Your task to perform on an android device: When is my next meeting? Image 0: 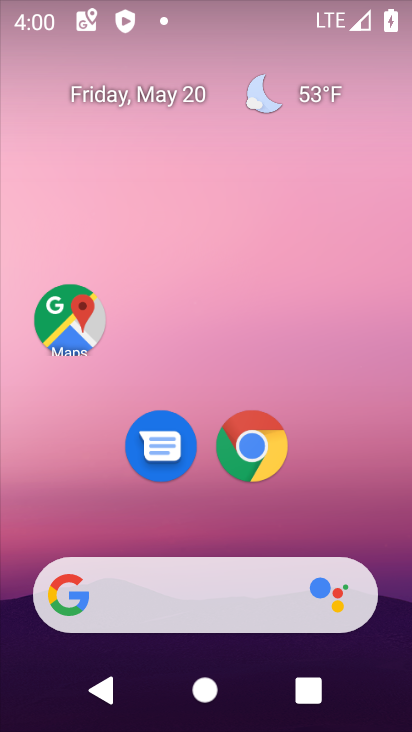
Step 0: drag from (341, 484) to (380, 106)
Your task to perform on an android device: When is my next meeting? Image 1: 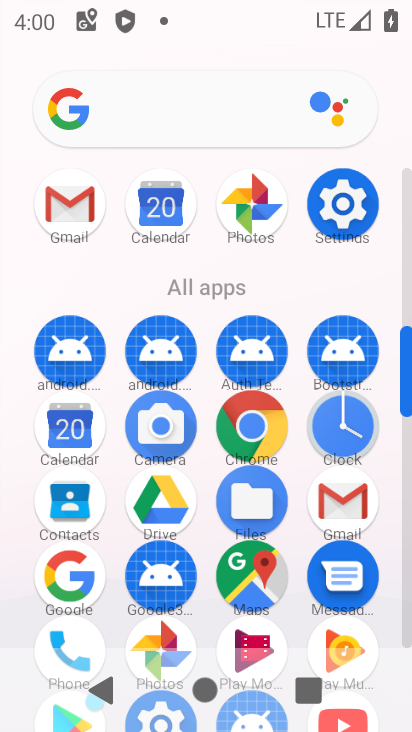
Step 1: drag from (390, 553) to (381, 205)
Your task to perform on an android device: When is my next meeting? Image 2: 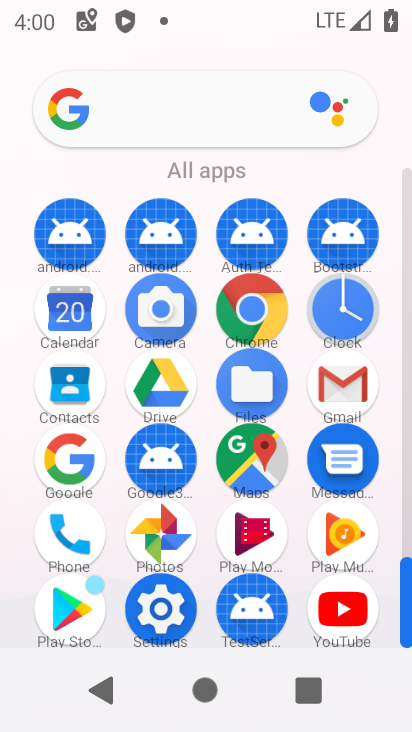
Step 2: click (81, 316)
Your task to perform on an android device: When is my next meeting? Image 3: 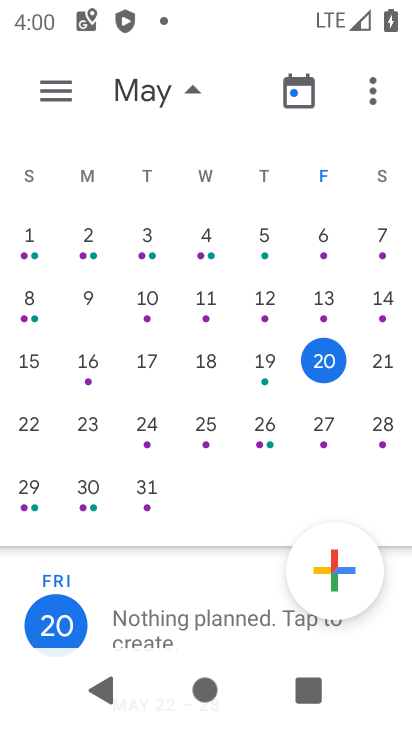
Step 3: task complete